Your task to perform on an android device: Play the last video I watched on Youtube Image 0: 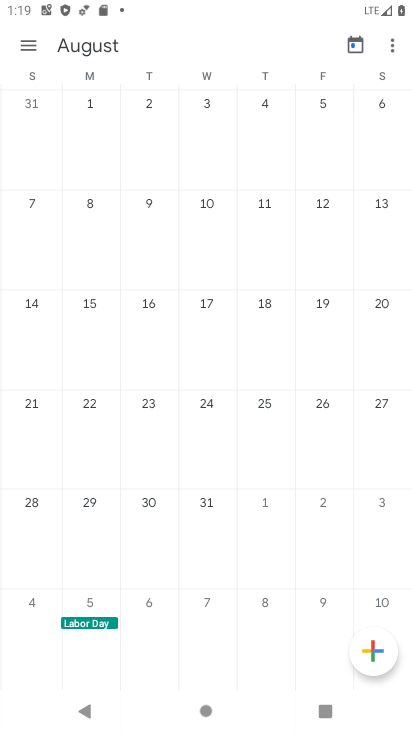
Step 0: press home button
Your task to perform on an android device: Play the last video I watched on Youtube Image 1: 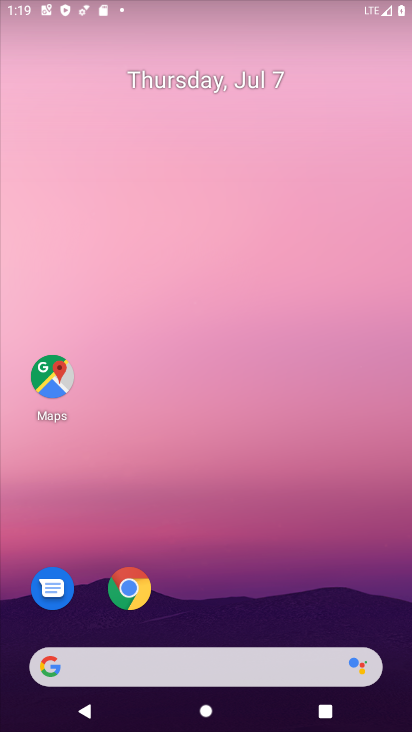
Step 1: drag from (282, 624) to (285, 196)
Your task to perform on an android device: Play the last video I watched on Youtube Image 2: 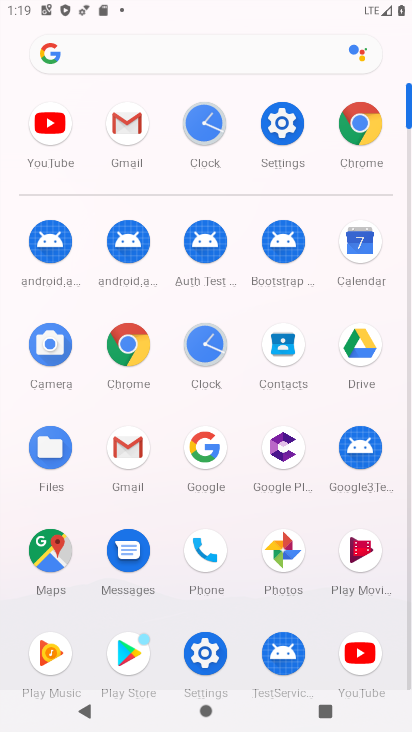
Step 2: click (349, 651)
Your task to perform on an android device: Play the last video I watched on Youtube Image 3: 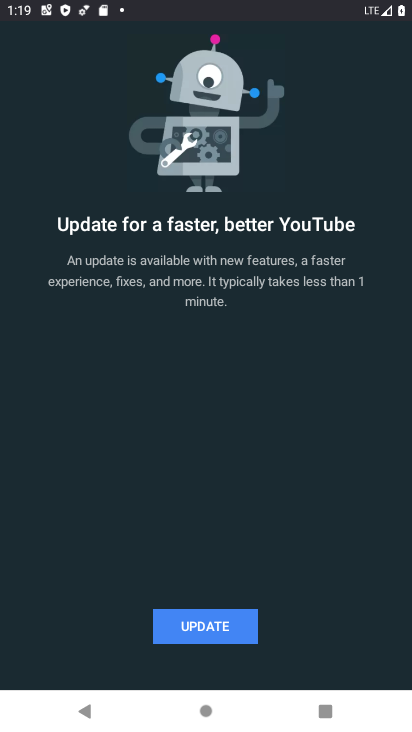
Step 3: task complete